Your task to perform on an android device: When is my next appointment? Image 0: 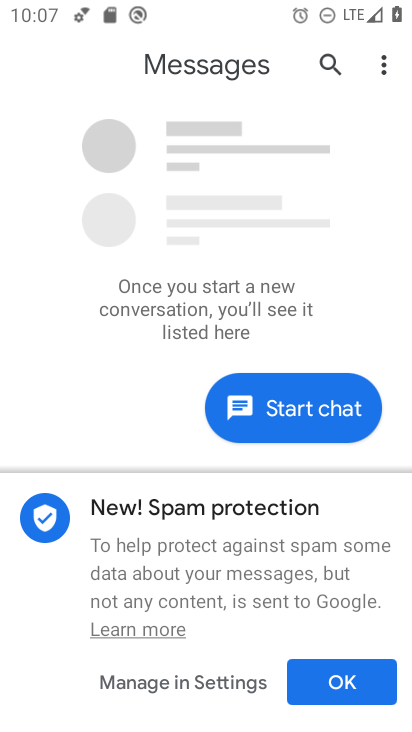
Step 0: press home button
Your task to perform on an android device: When is my next appointment? Image 1: 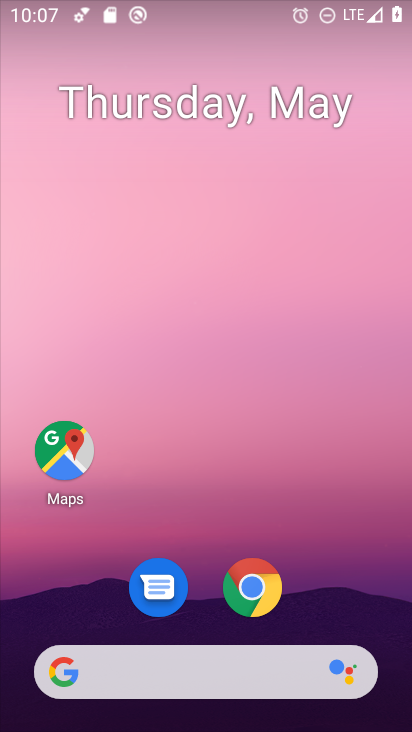
Step 1: drag from (331, 638) to (346, 13)
Your task to perform on an android device: When is my next appointment? Image 2: 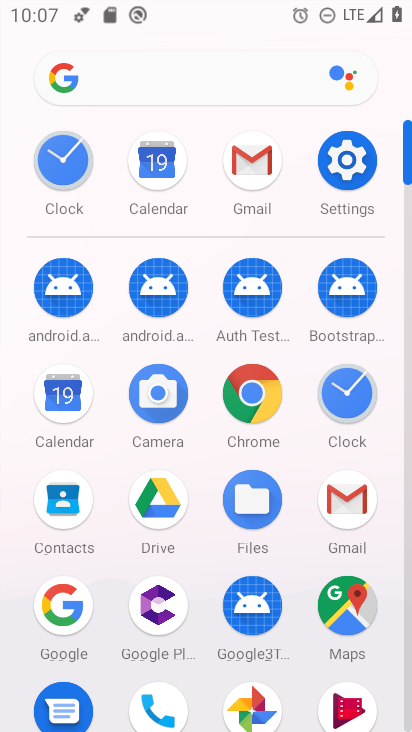
Step 2: click (68, 400)
Your task to perform on an android device: When is my next appointment? Image 3: 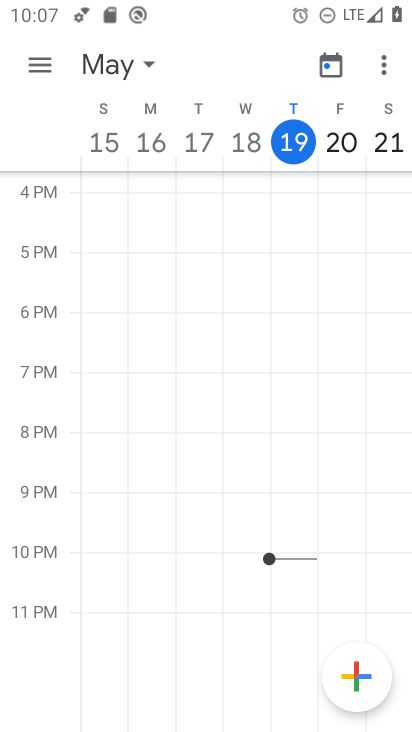
Step 3: click (37, 72)
Your task to perform on an android device: When is my next appointment? Image 4: 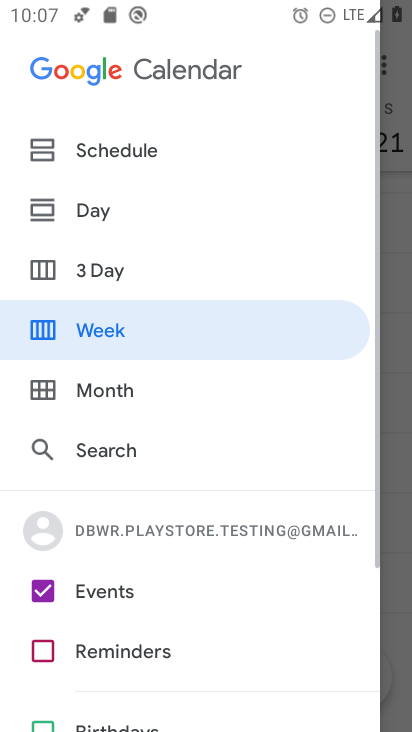
Step 4: click (83, 152)
Your task to perform on an android device: When is my next appointment? Image 5: 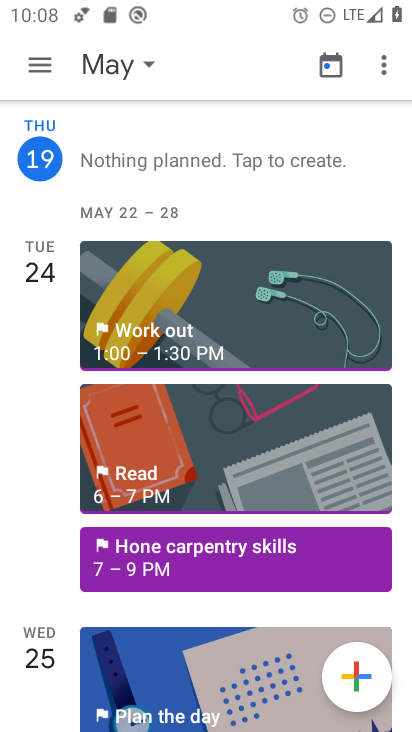
Step 5: click (210, 529)
Your task to perform on an android device: When is my next appointment? Image 6: 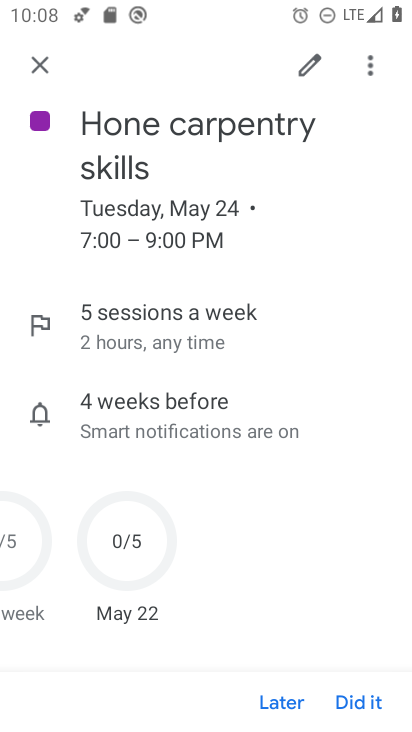
Step 6: task complete